Your task to perform on an android device: turn off location history Image 0: 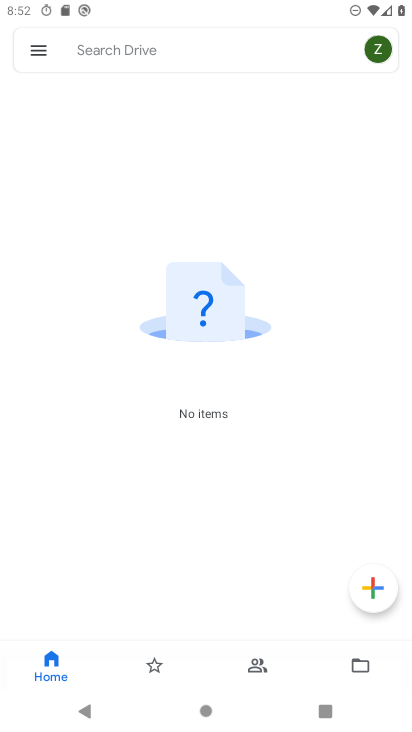
Step 0: press home button
Your task to perform on an android device: turn off location history Image 1: 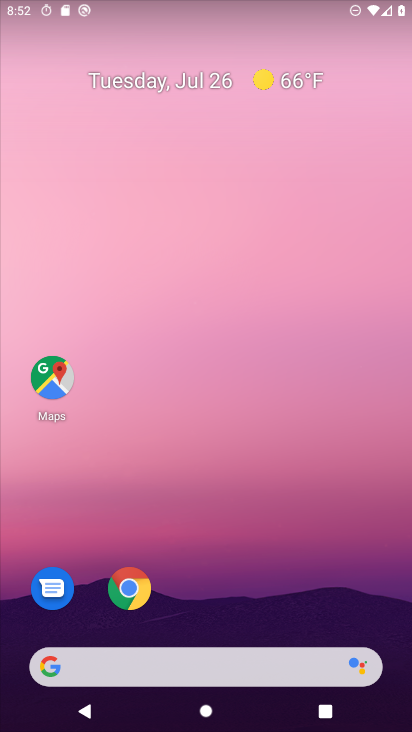
Step 1: drag from (240, 711) to (231, 88)
Your task to perform on an android device: turn off location history Image 2: 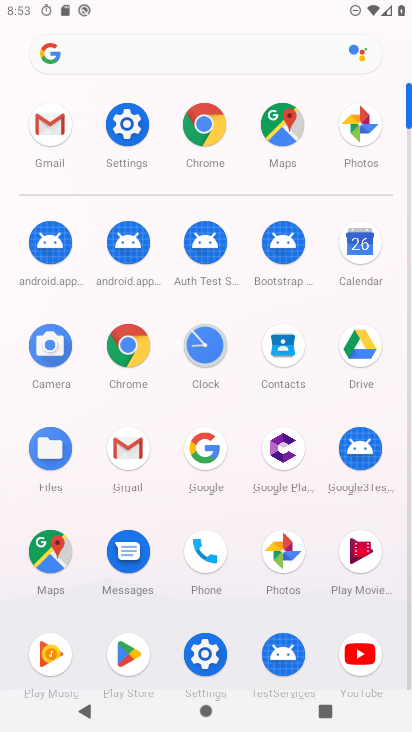
Step 2: click (128, 119)
Your task to perform on an android device: turn off location history Image 3: 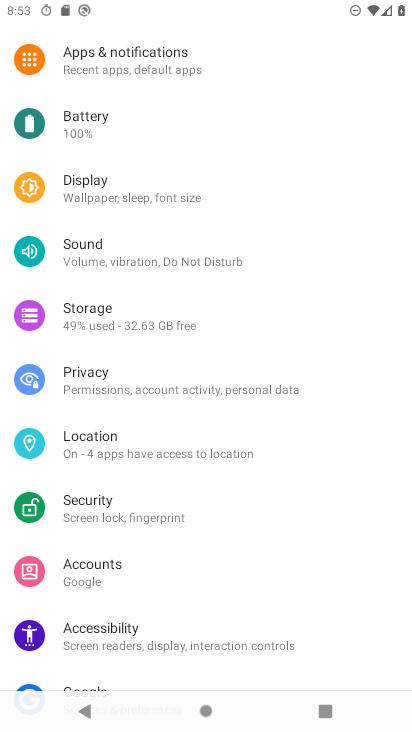
Step 3: click (84, 438)
Your task to perform on an android device: turn off location history Image 4: 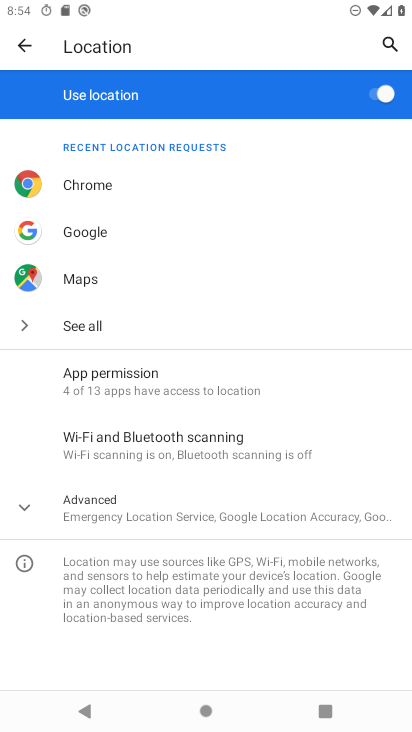
Step 4: click (114, 505)
Your task to perform on an android device: turn off location history Image 5: 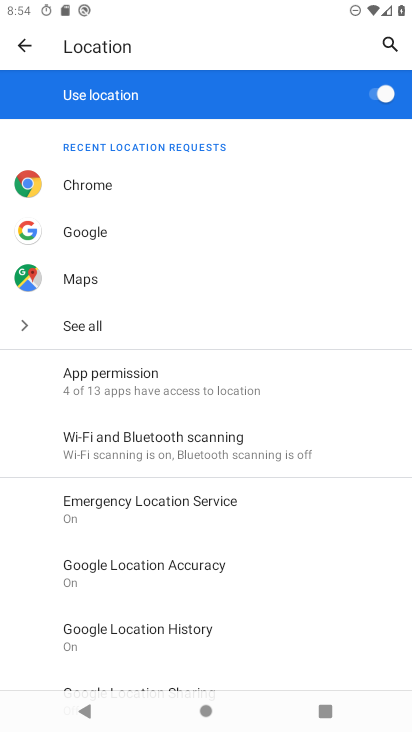
Step 5: click (152, 627)
Your task to perform on an android device: turn off location history Image 6: 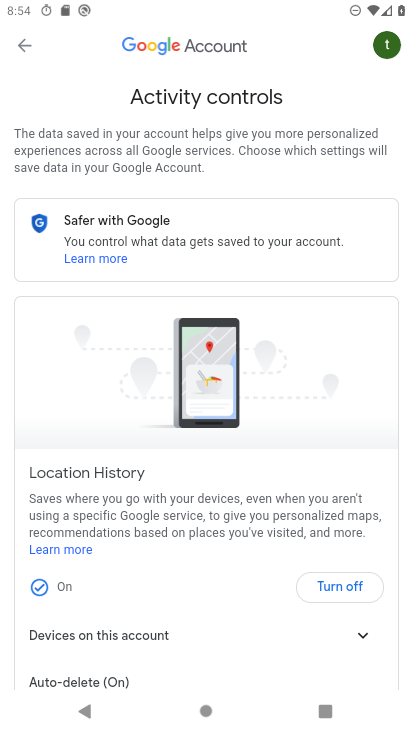
Step 6: click (347, 585)
Your task to perform on an android device: turn off location history Image 7: 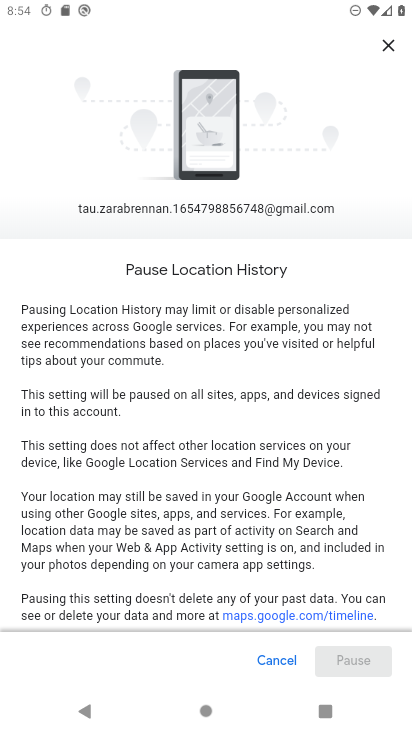
Step 7: drag from (340, 579) to (337, 313)
Your task to perform on an android device: turn off location history Image 8: 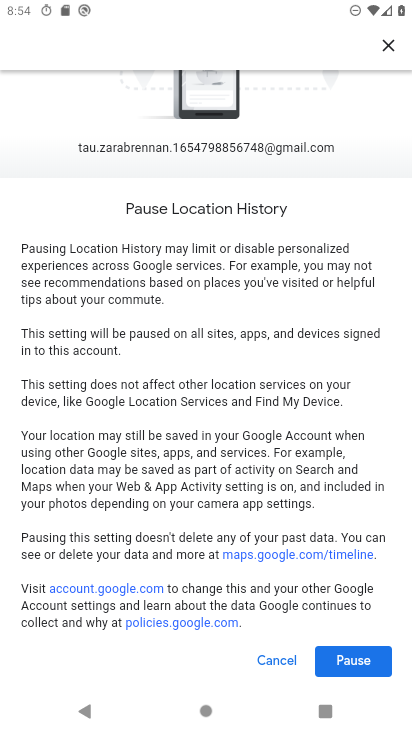
Step 8: click (365, 655)
Your task to perform on an android device: turn off location history Image 9: 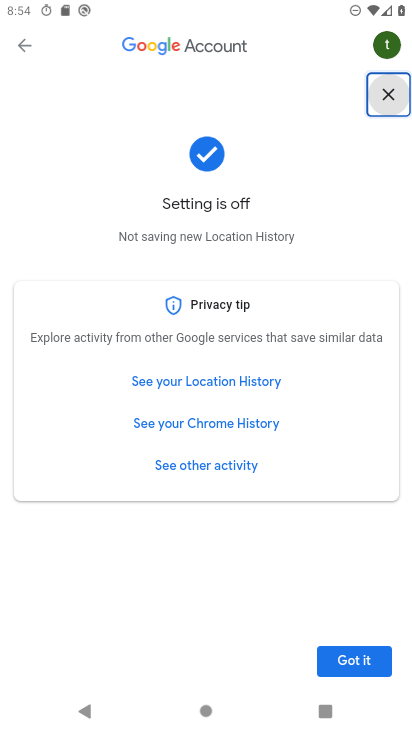
Step 9: click (351, 657)
Your task to perform on an android device: turn off location history Image 10: 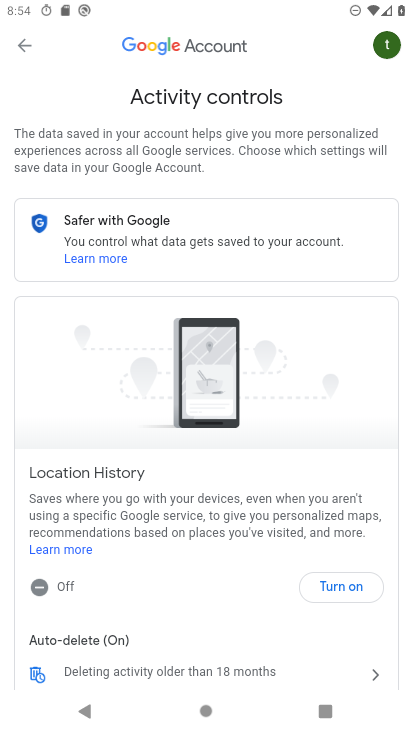
Step 10: task complete